Your task to perform on an android device: stop showing notifications on the lock screen Image 0: 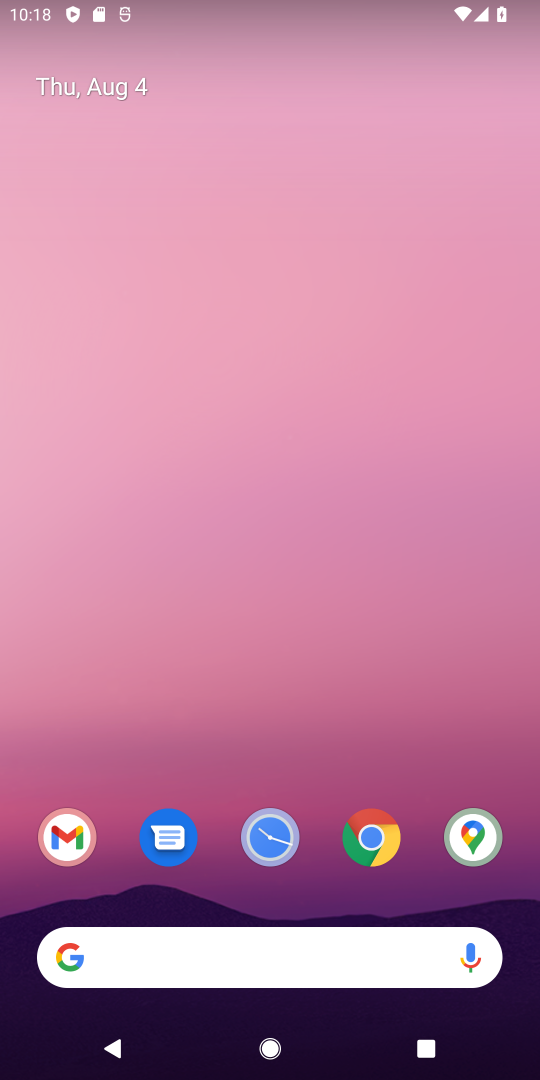
Step 0: drag from (441, 773) to (140, 19)
Your task to perform on an android device: stop showing notifications on the lock screen Image 1: 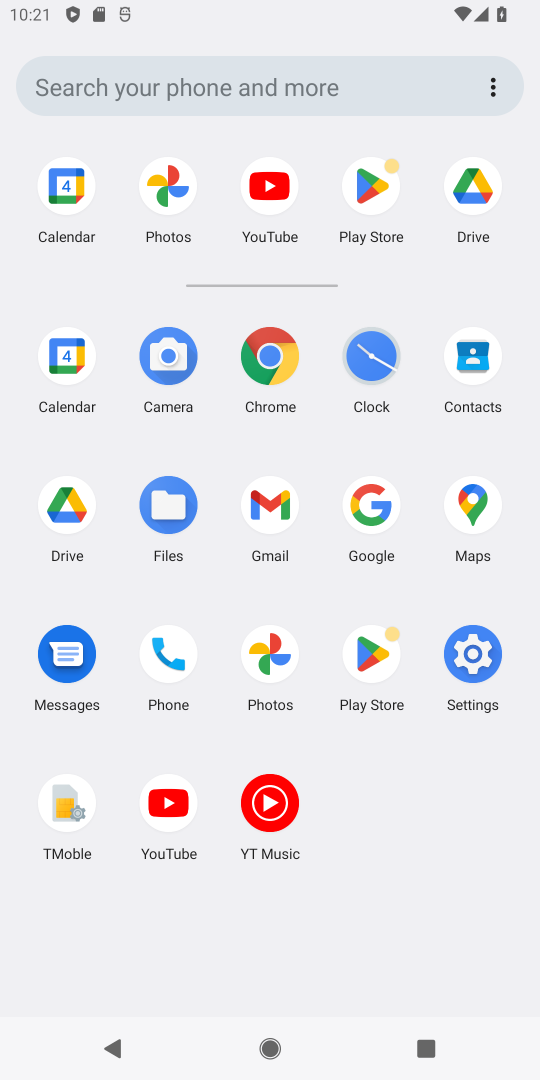
Step 1: click (466, 600)
Your task to perform on an android device: stop showing notifications on the lock screen Image 2: 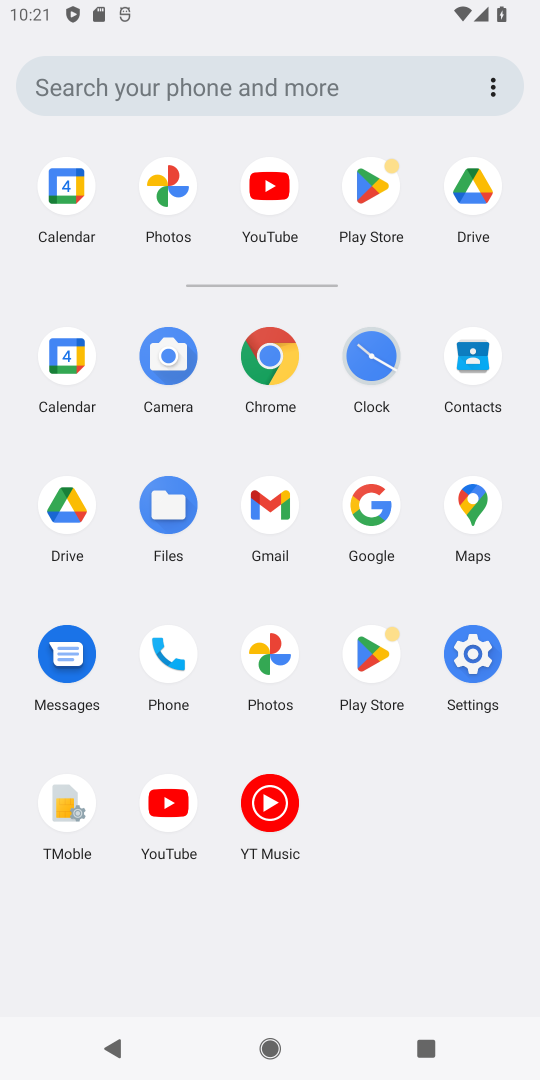
Step 2: click (459, 678)
Your task to perform on an android device: stop showing notifications on the lock screen Image 3: 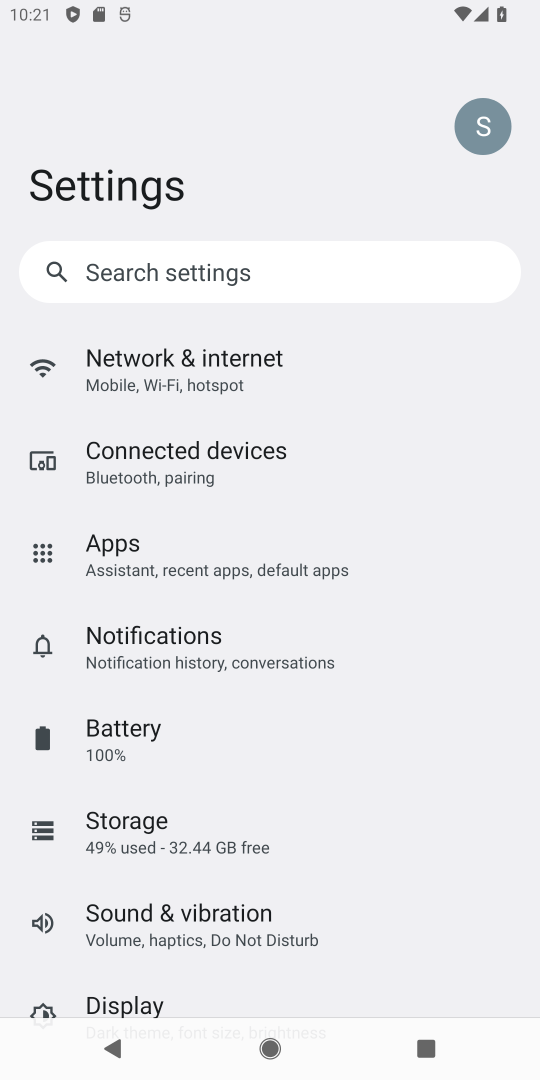
Step 3: click (169, 658)
Your task to perform on an android device: stop showing notifications on the lock screen Image 4: 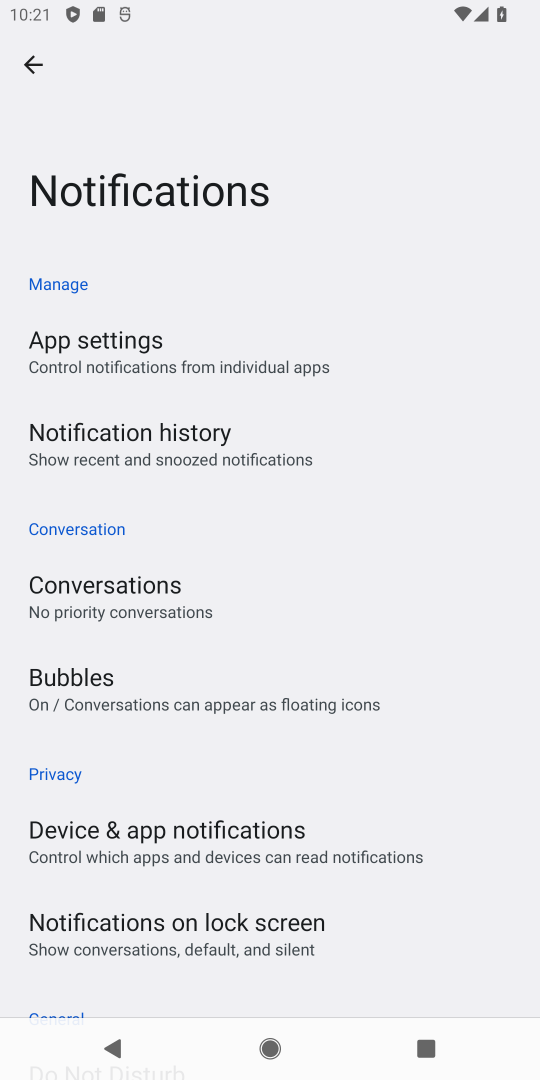
Step 4: click (253, 940)
Your task to perform on an android device: stop showing notifications on the lock screen Image 5: 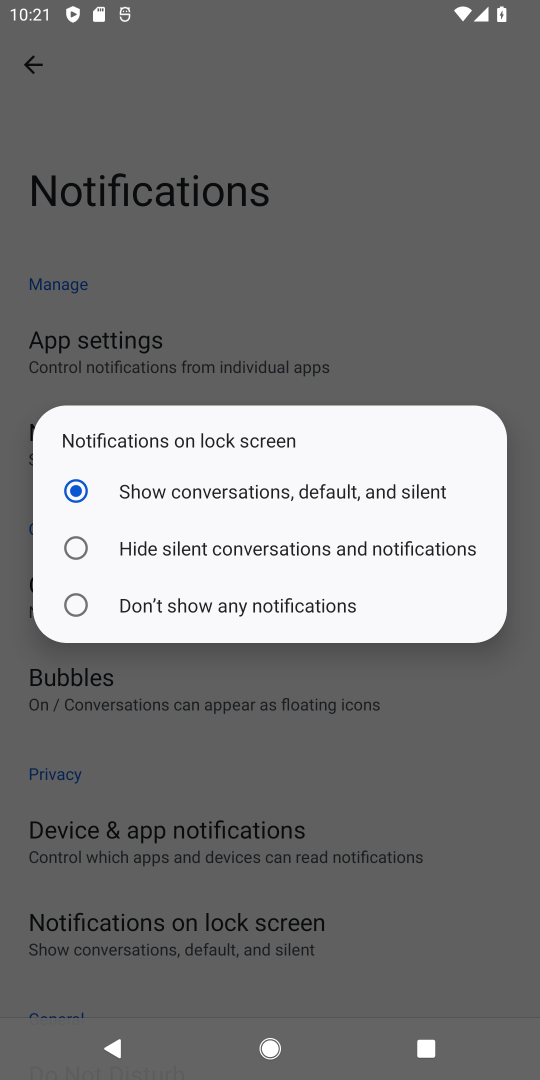
Step 5: click (141, 604)
Your task to perform on an android device: stop showing notifications on the lock screen Image 6: 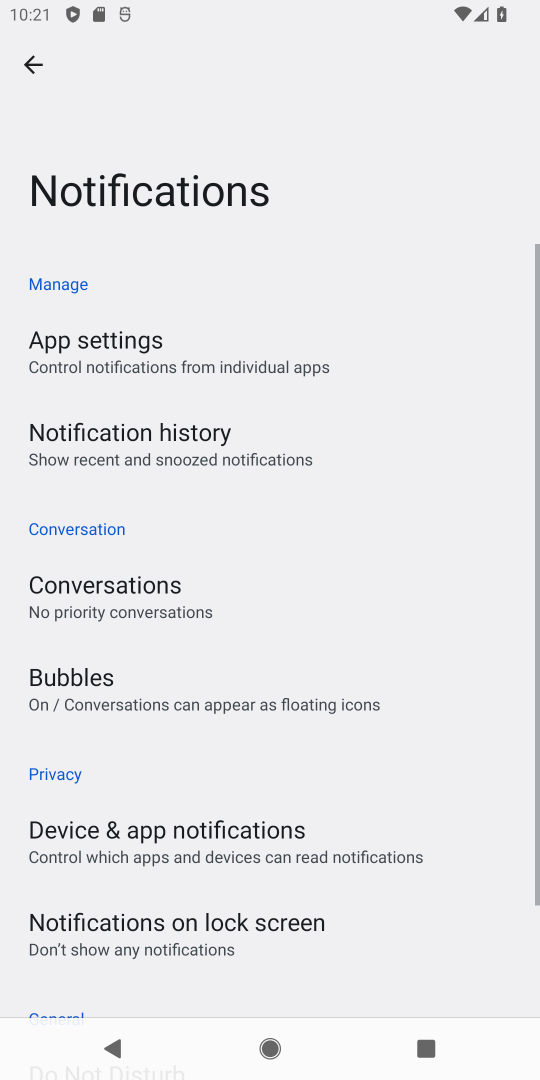
Step 6: task complete